Your task to perform on an android device: install app "Pandora - Music & Podcasts" Image 0: 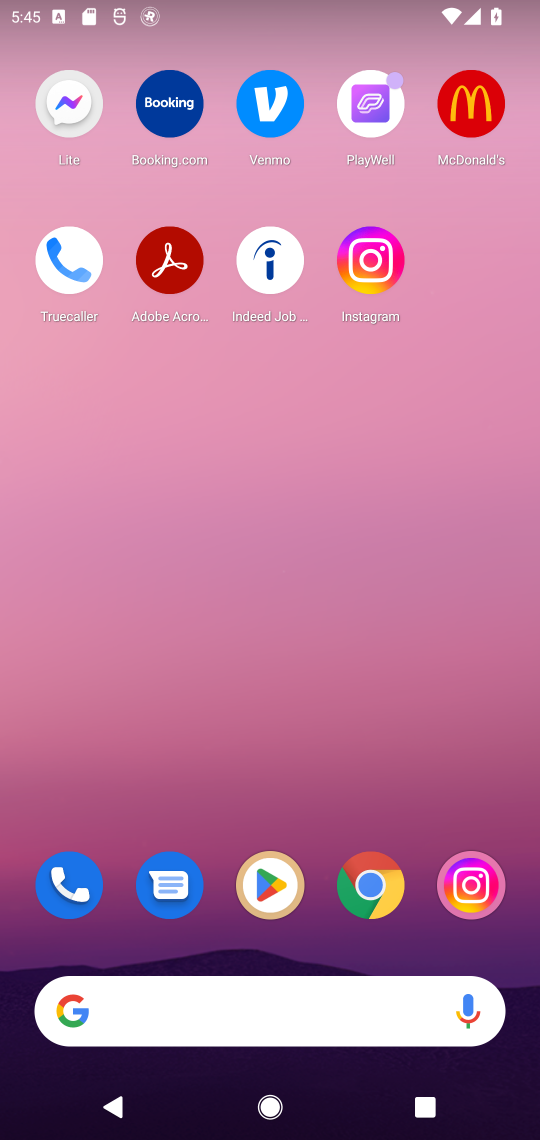
Step 0: click (264, 880)
Your task to perform on an android device: install app "Pandora - Music & Podcasts" Image 1: 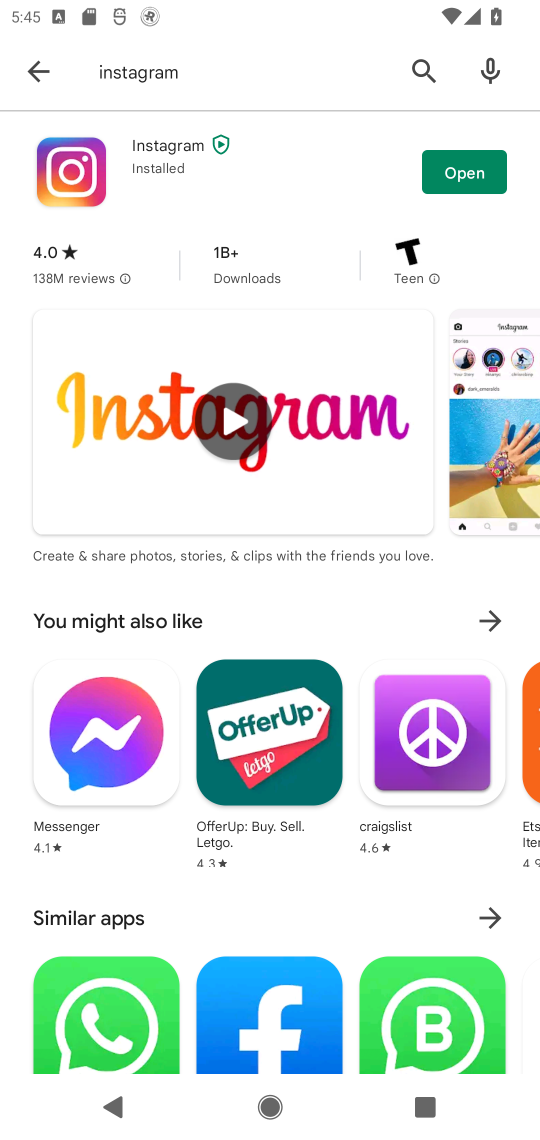
Step 1: click (422, 63)
Your task to perform on an android device: install app "Pandora - Music & Podcasts" Image 2: 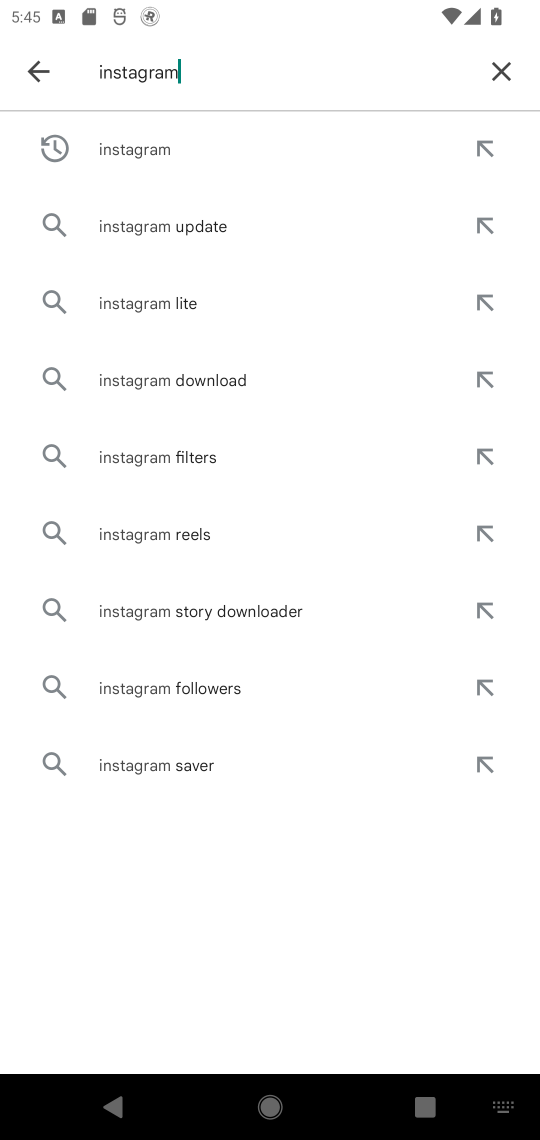
Step 2: click (499, 56)
Your task to perform on an android device: install app "Pandora - Music & Podcasts" Image 3: 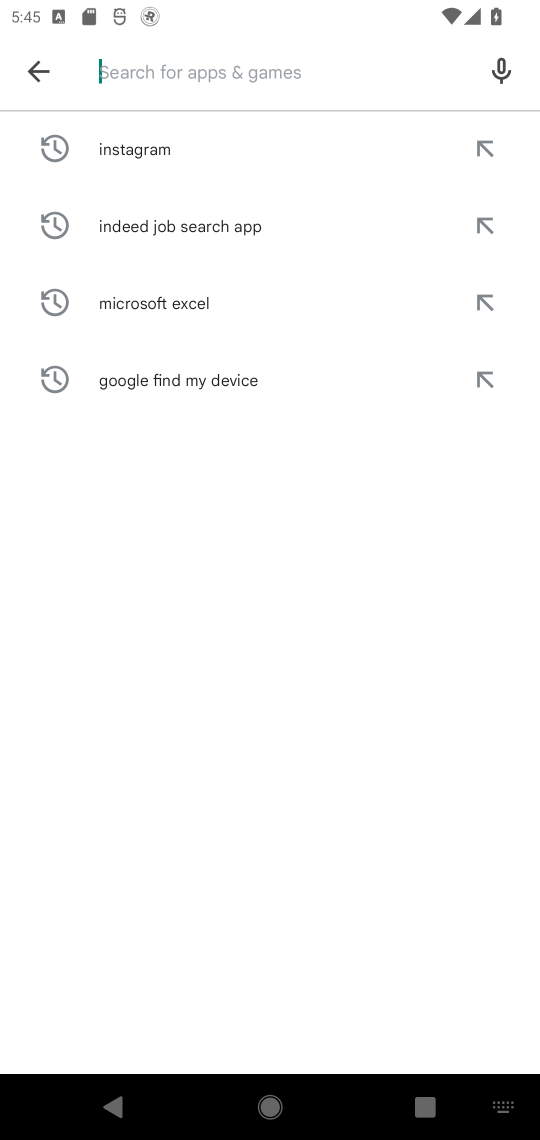
Step 3: click (192, 71)
Your task to perform on an android device: install app "Pandora - Music & Podcasts" Image 4: 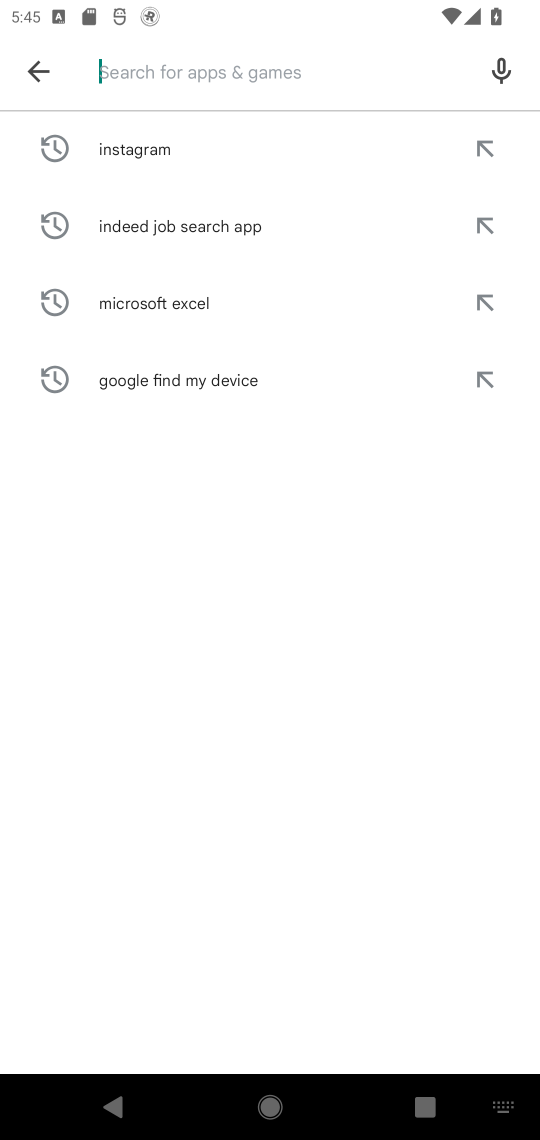
Step 4: type "pandora"
Your task to perform on an android device: install app "Pandora - Music & Podcasts" Image 5: 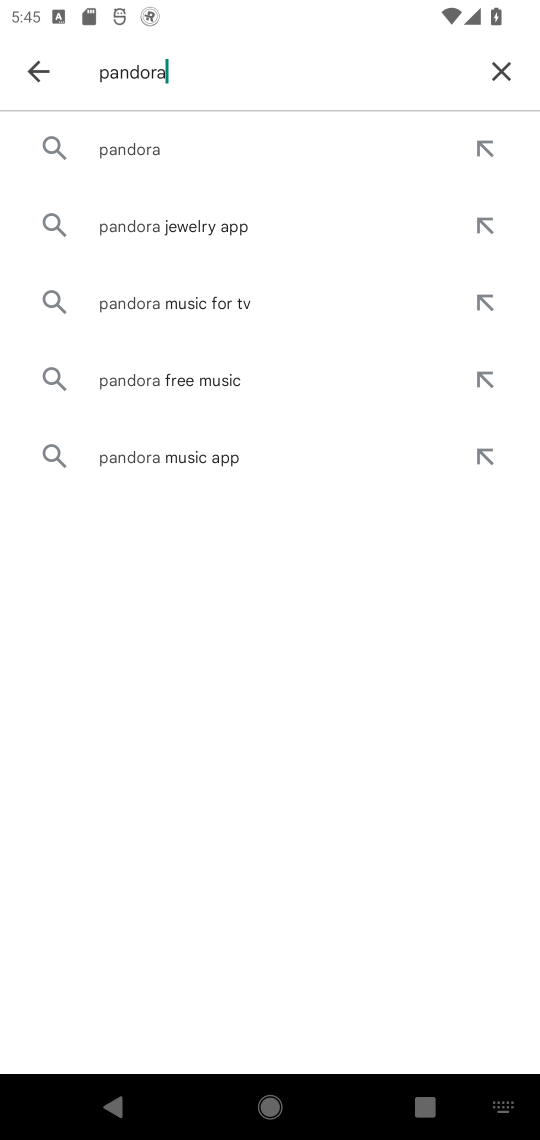
Step 5: click (137, 150)
Your task to perform on an android device: install app "Pandora - Music & Podcasts" Image 6: 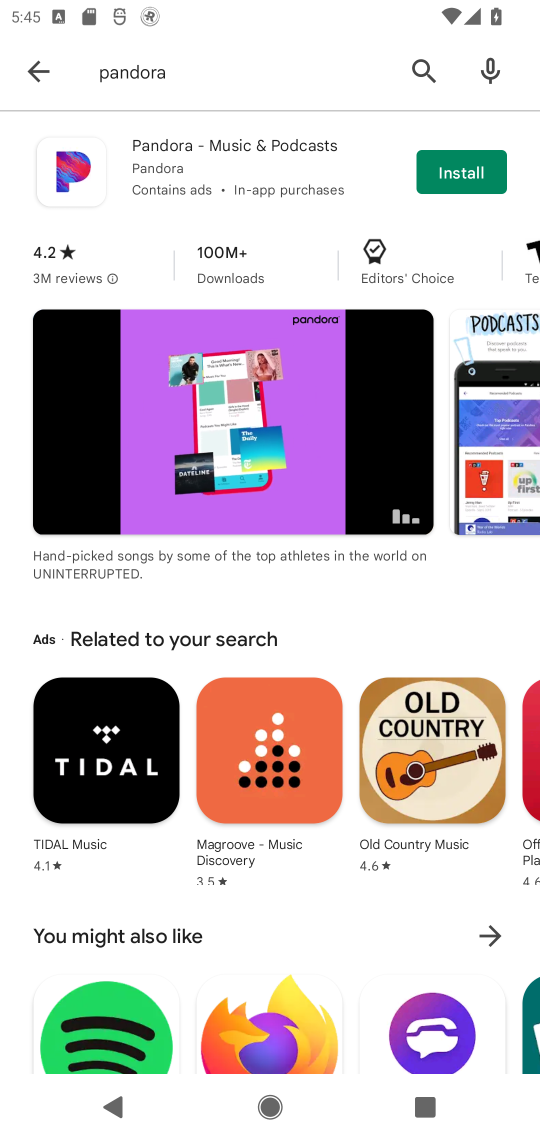
Step 6: click (456, 170)
Your task to perform on an android device: install app "Pandora - Music & Podcasts" Image 7: 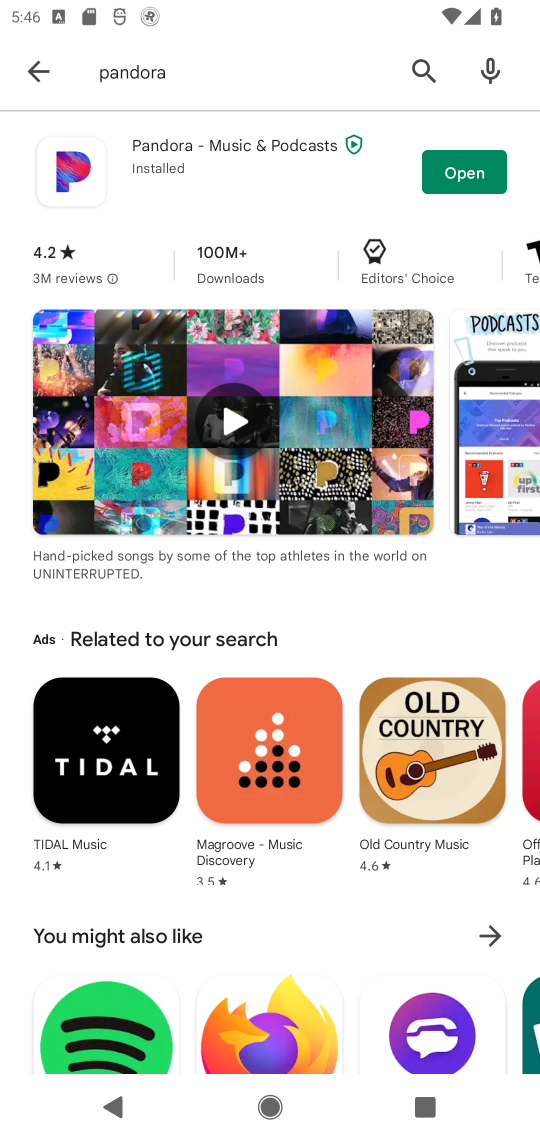
Step 7: click (474, 175)
Your task to perform on an android device: install app "Pandora - Music & Podcasts" Image 8: 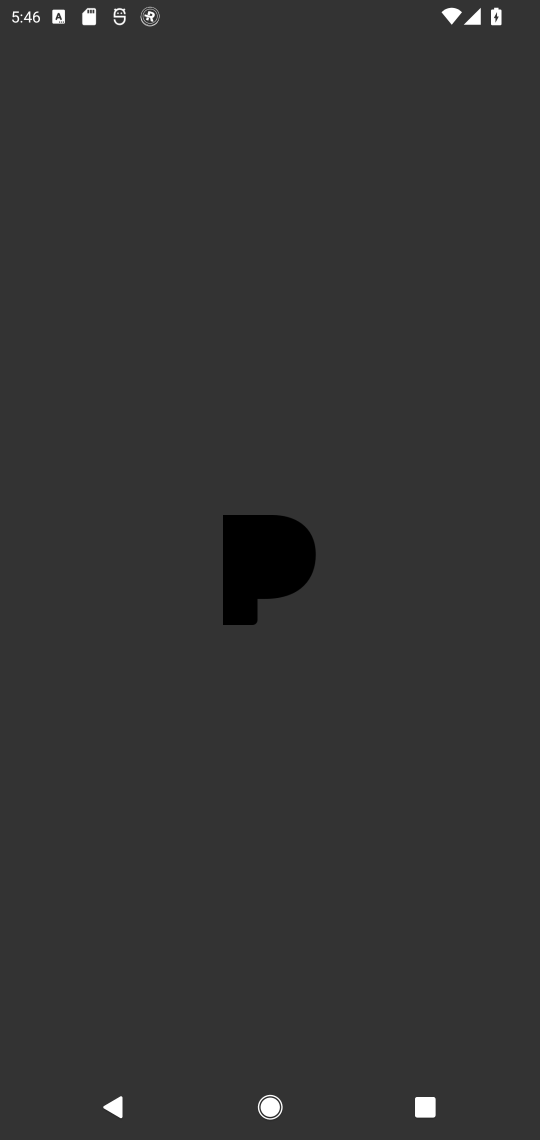
Step 8: task complete